Your task to perform on an android device: add a contact Image 0: 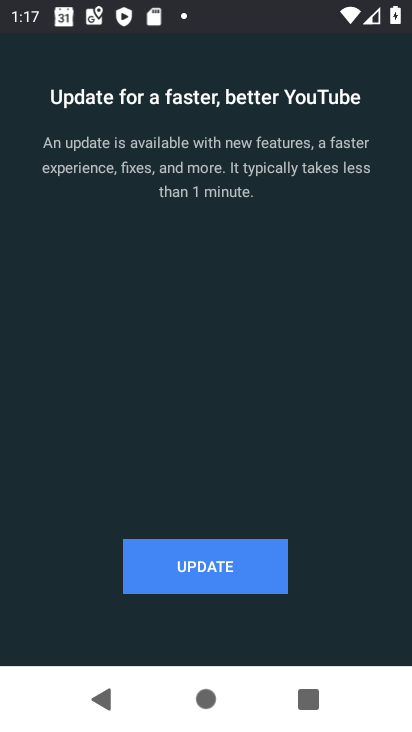
Step 0: press home button
Your task to perform on an android device: add a contact Image 1: 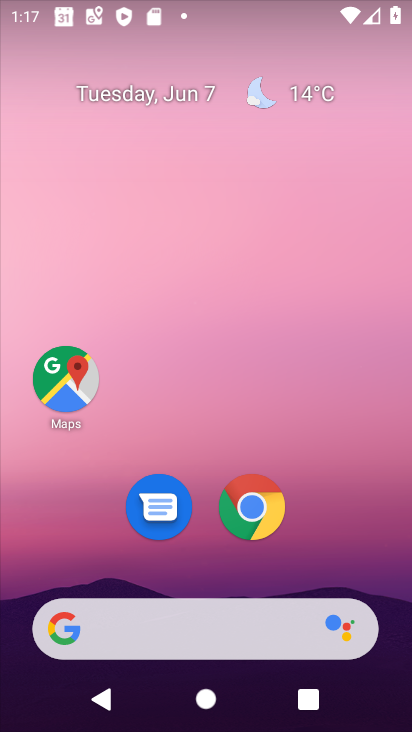
Step 1: drag from (382, 581) to (326, 17)
Your task to perform on an android device: add a contact Image 2: 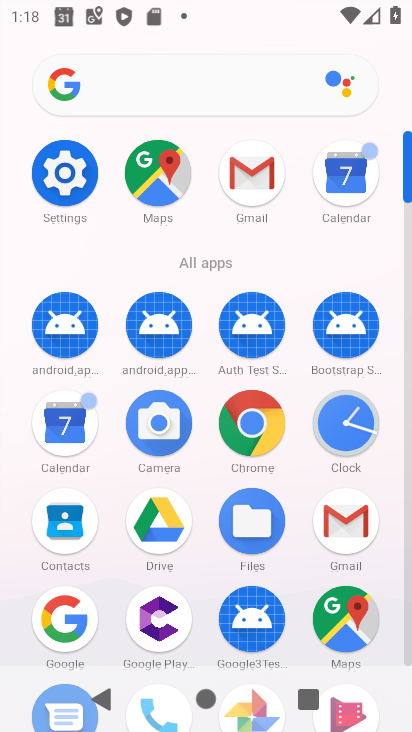
Step 2: click (61, 524)
Your task to perform on an android device: add a contact Image 3: 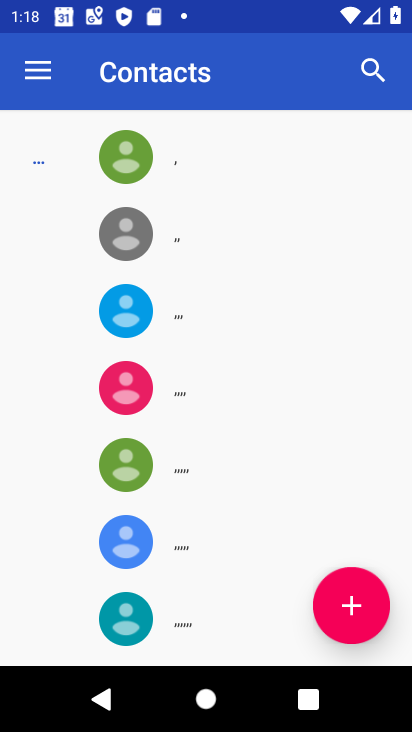
Step 3: click (355, 600)
Your task to perform on an android device: add a contact Image 4: 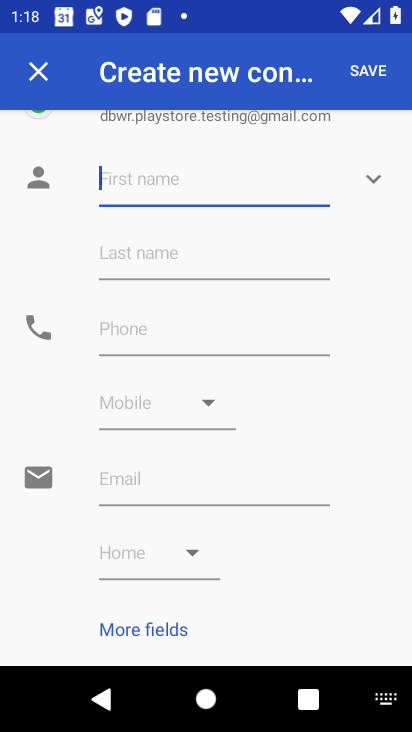
Step 4: type "lkjhgfdsd"
Your task to perform on an android device: add a contact Image 5: 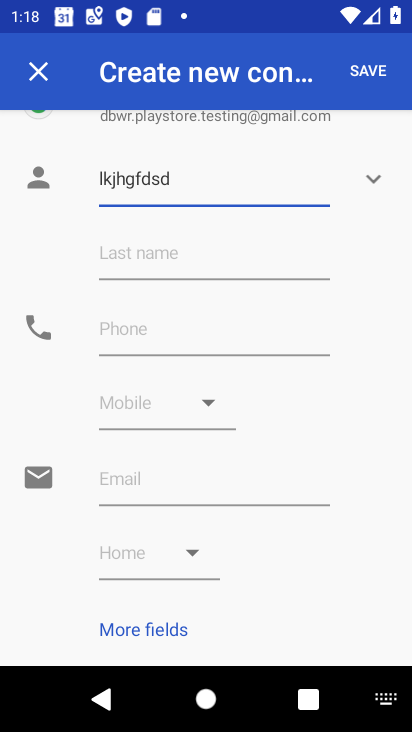
Step 5: click (133, 325)
Your task to perform on an android device: add a contact Image 6: 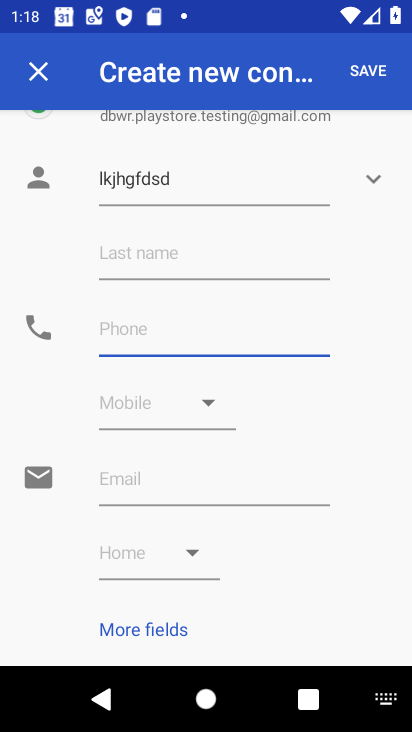
Step 6: type "0987654"
Your task to perform on an android device: add a contact Image 7: 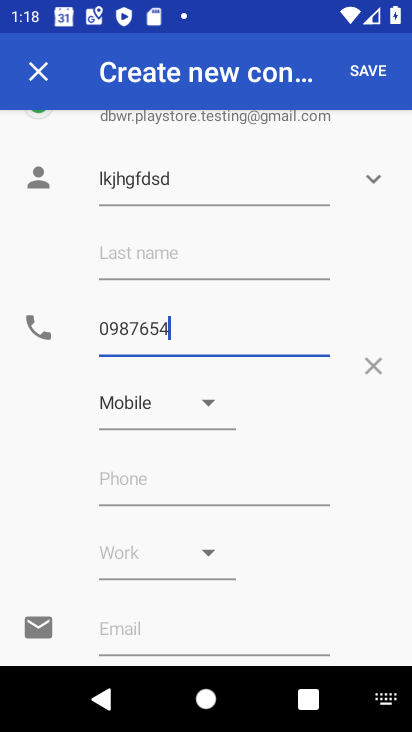
Step 7: click (366, 75)
Your task to perform on an android device: add a contact Image 8: 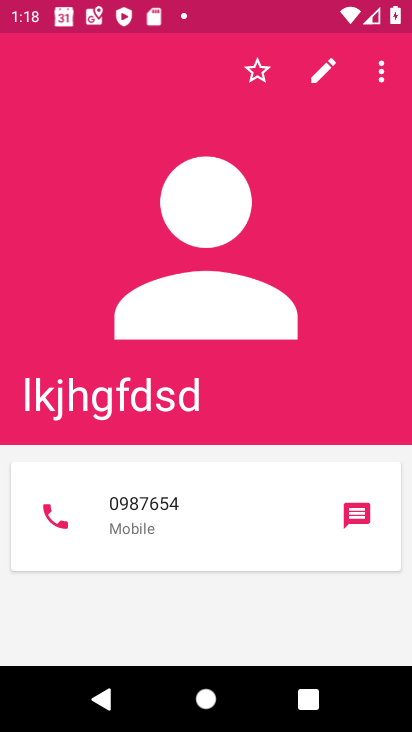
Step 8: task complete